Your task to perform on an android device: turn on sleep mode Image 0: 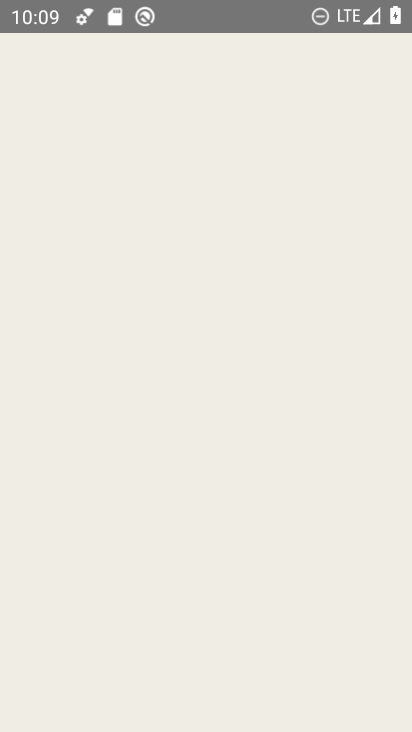
Step 0: press home button
Your task to perform on an android device: turn on sleep mode Image 1: 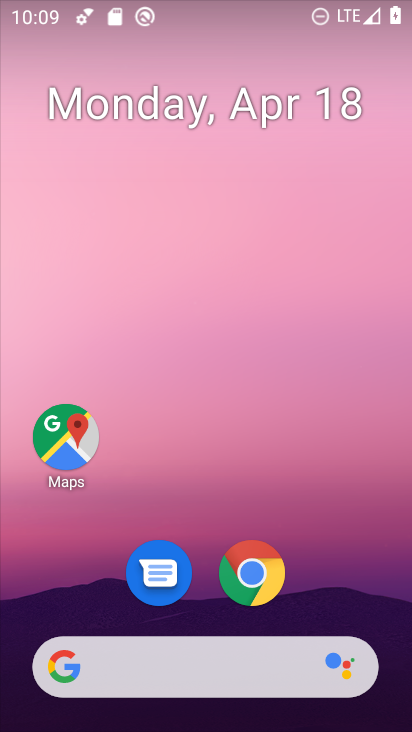
Step 1: drag from (357, 591) to (219, 6)
Your task to perform on an android device: turn on sleep mode Image 2: 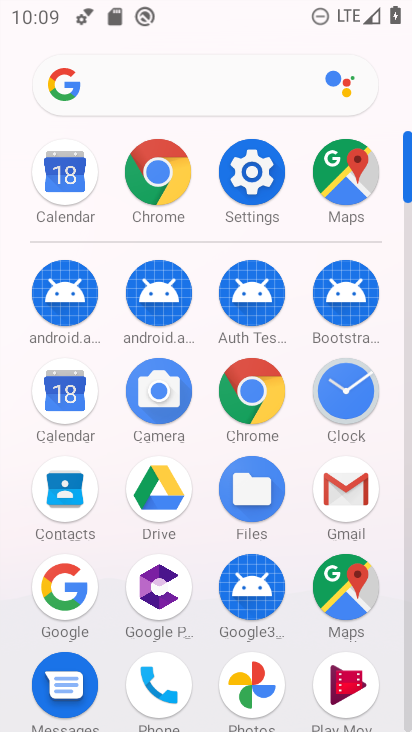
Step 2: click (257, 170)
Your task to perform on an android device: turn on sleep mode Image 3: 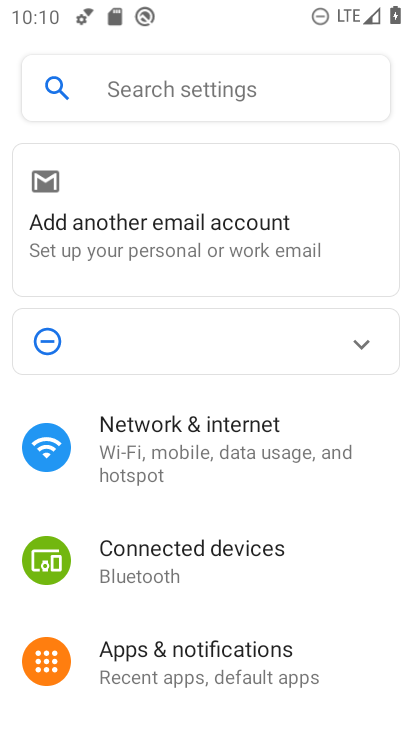
Step 3: task complete